Your task to perform on an android device: delete location history Image 0: 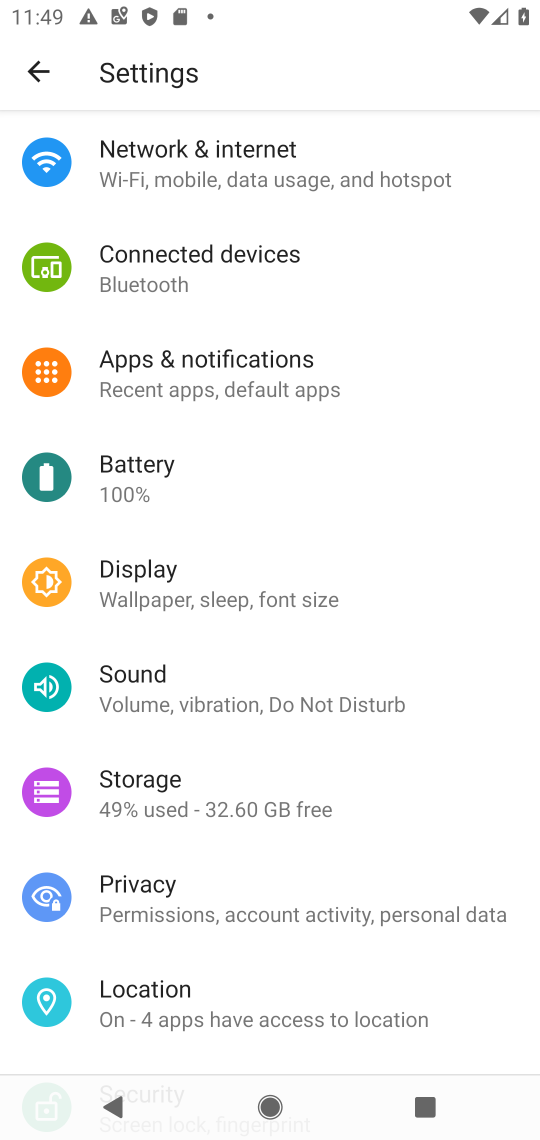
Step 0: press home button
Your task to perform on an android device: delete location history Image 1: 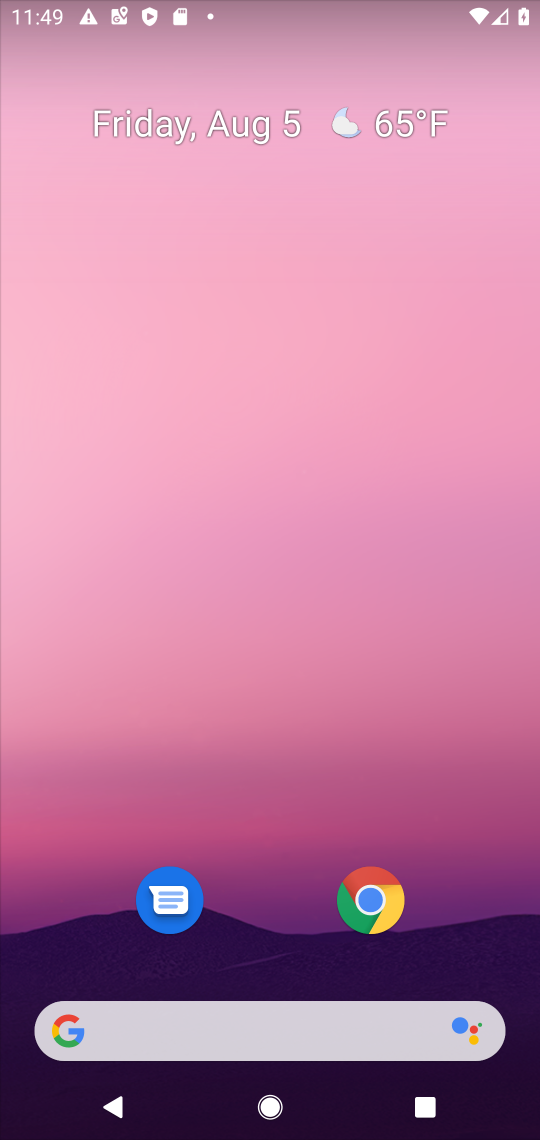
Step 1: drag from (259, 679) to (232, 82)
Your task to perform on an android device: delete location history Image 2: 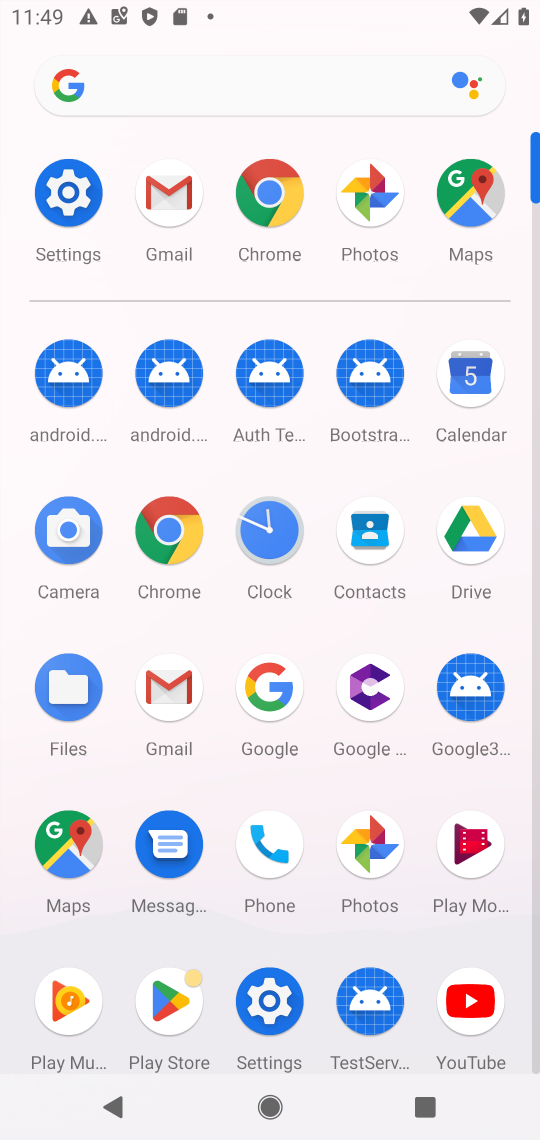
Step 2: click (57, 848)
Your task to perform on an android device: delete location history Image 3: 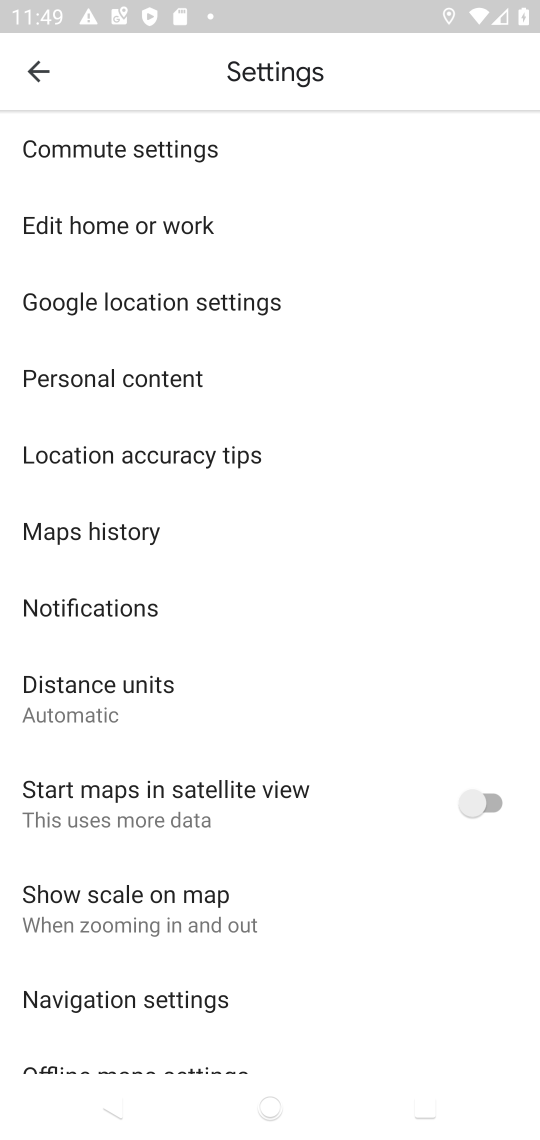
Step 3: click (40, 69)
Your task to perform on an android device: delete location history Image 4: 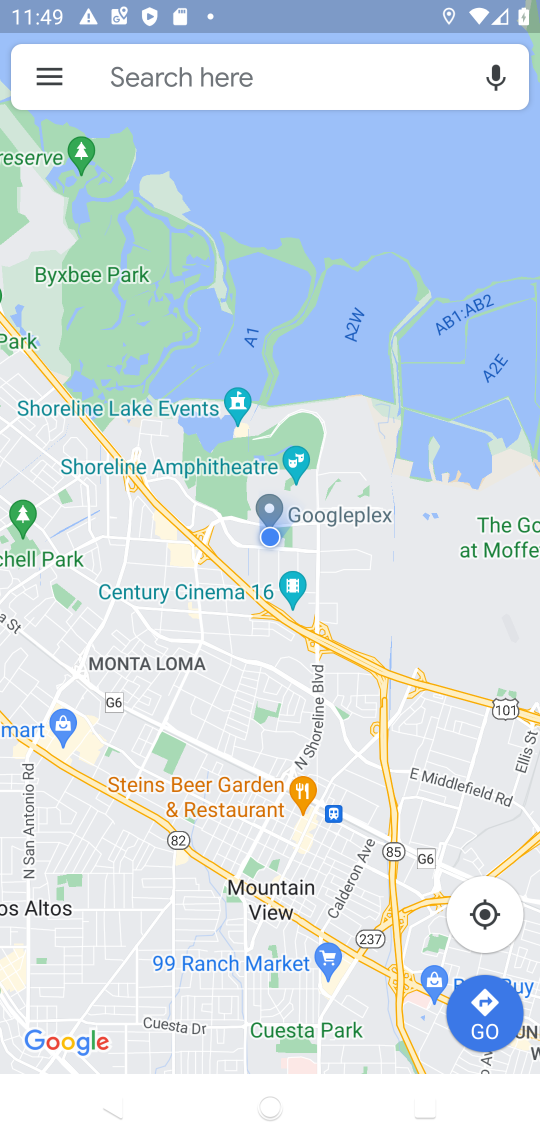
Step 4: click (37, 70)
Your task to perform on an android device: delete location history Image 5: 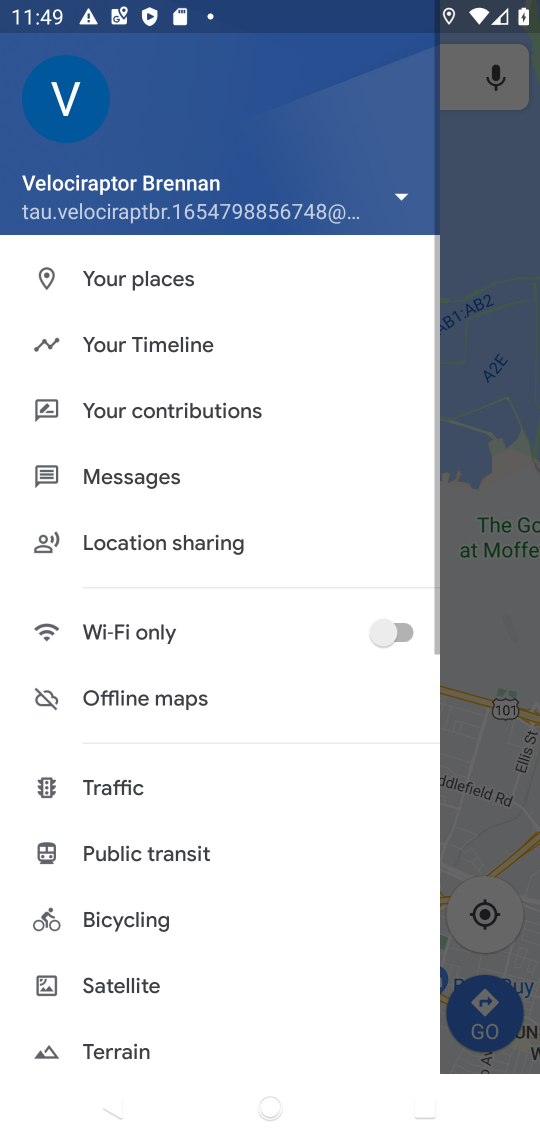
Step 5: click (155, 340)
Your task to perform on an android device: delete location history Image 6: 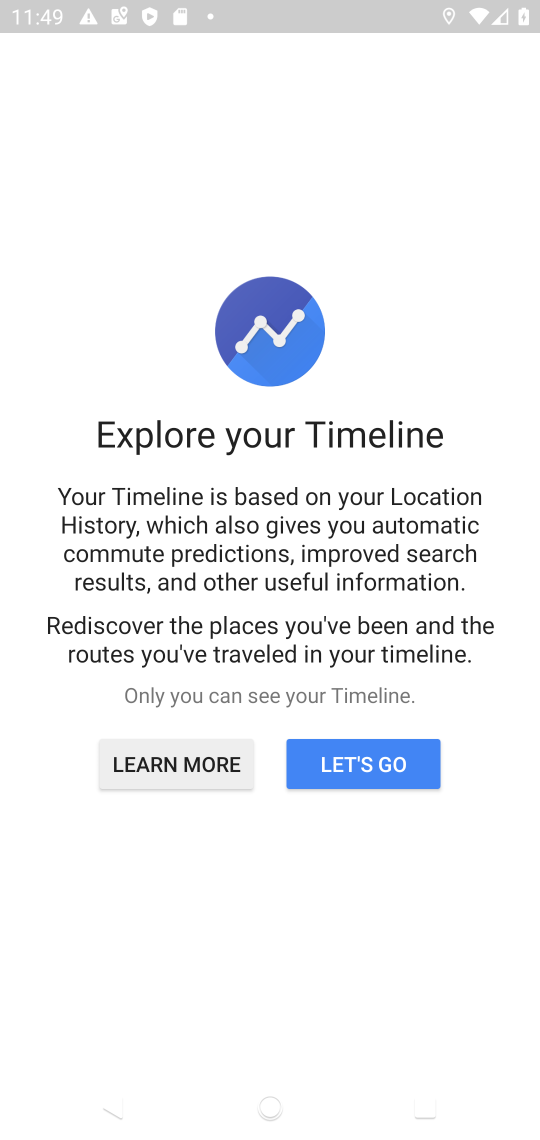
Step 6: click (326, 757)
Your task to perform on an android device: delete location history Image 7: 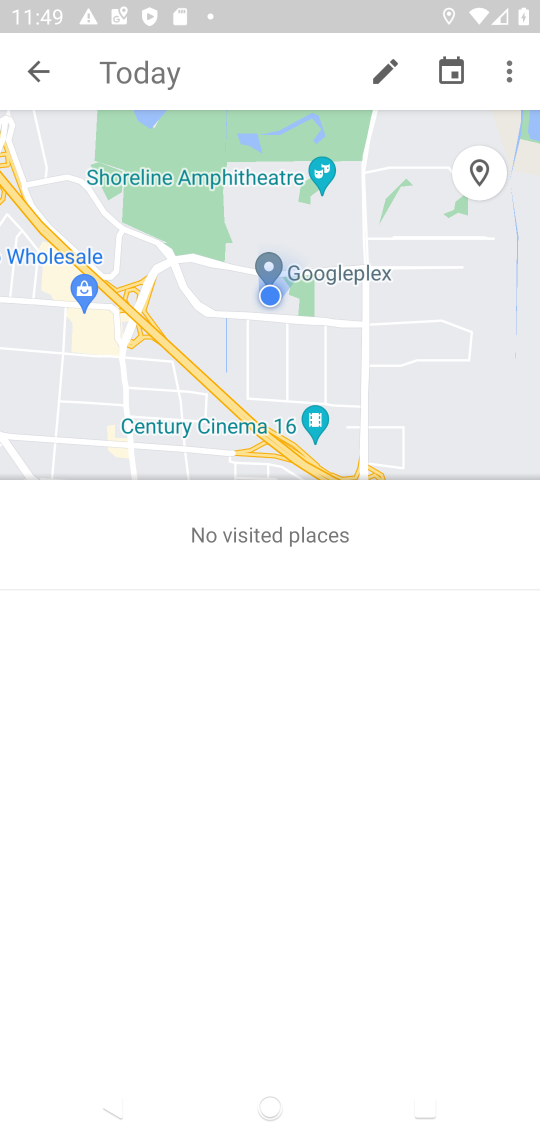
Step 7: click (509, 80)
Your task to perform on an android device: delete location history Image 8: 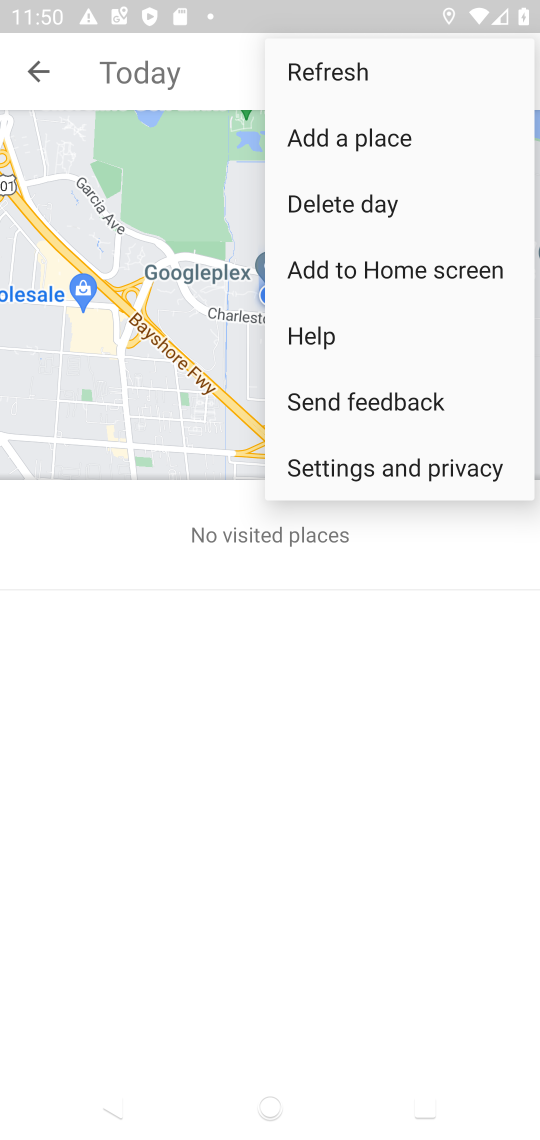
Step 8: click (382, 471)
Your task to perform on an android device: delete location history Image 9: 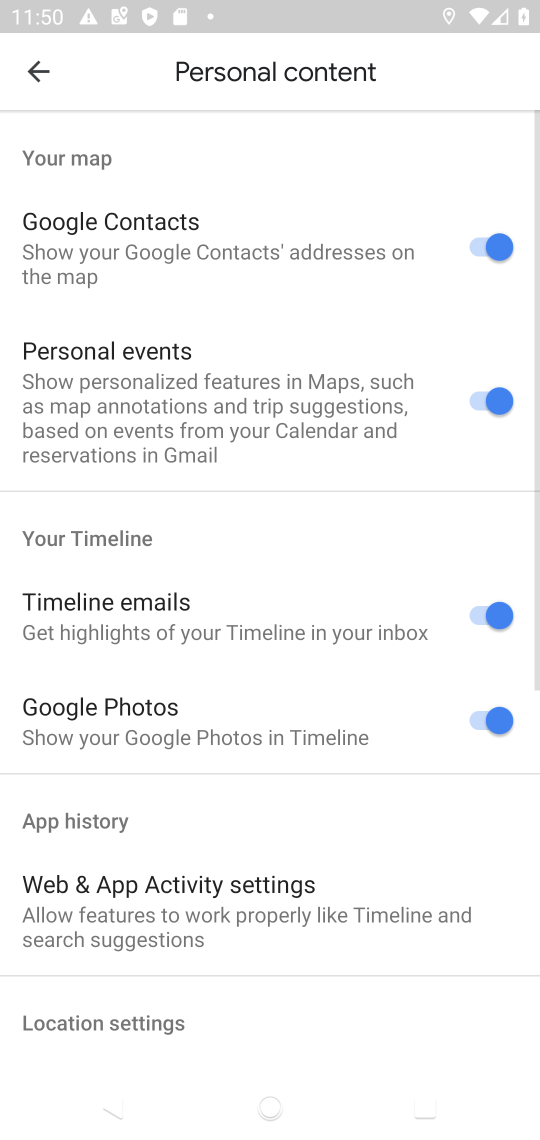
Step 9: drag from (130, 934) to (174, 408)
Your task to perform on an android device: delete location history Image 10: 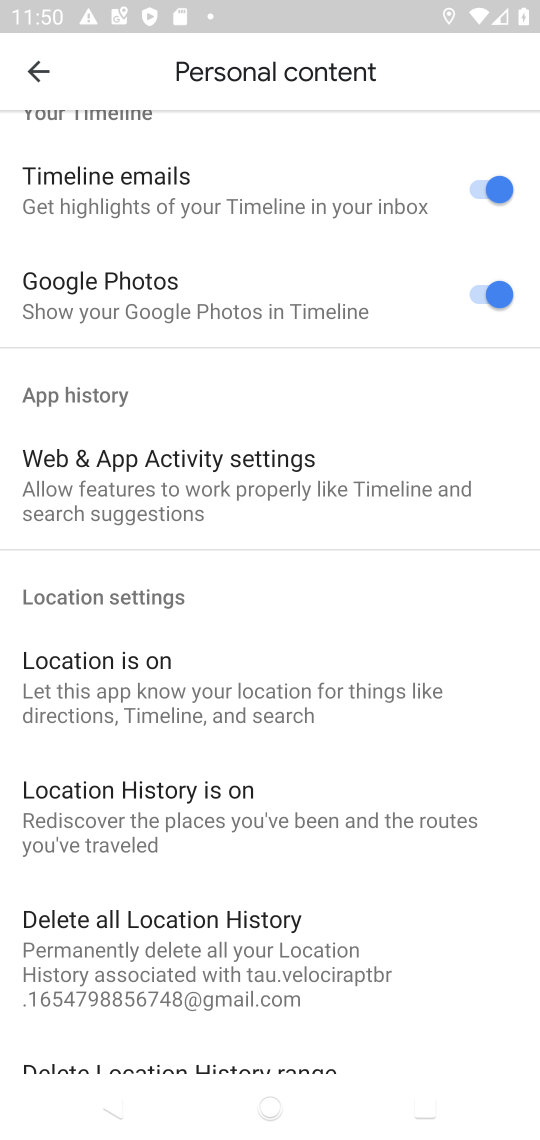
Step 10: drag from (179, 993) to (173, 579)
Your task to perform on an android device: delete location history Image 11: 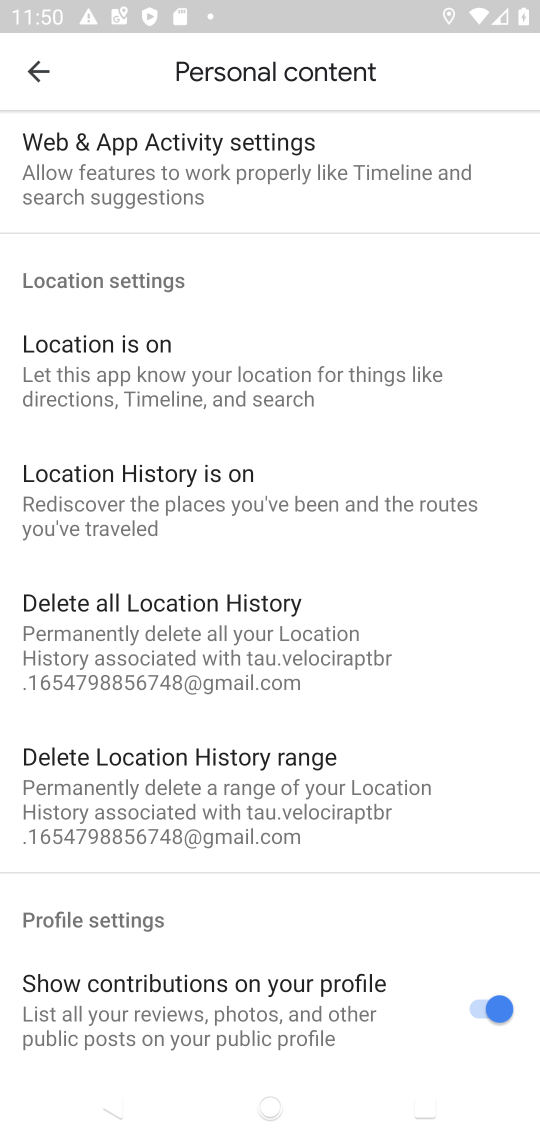
Step 11: click (132, 630)
Your task to perform on an android device: delete location history Image 12: 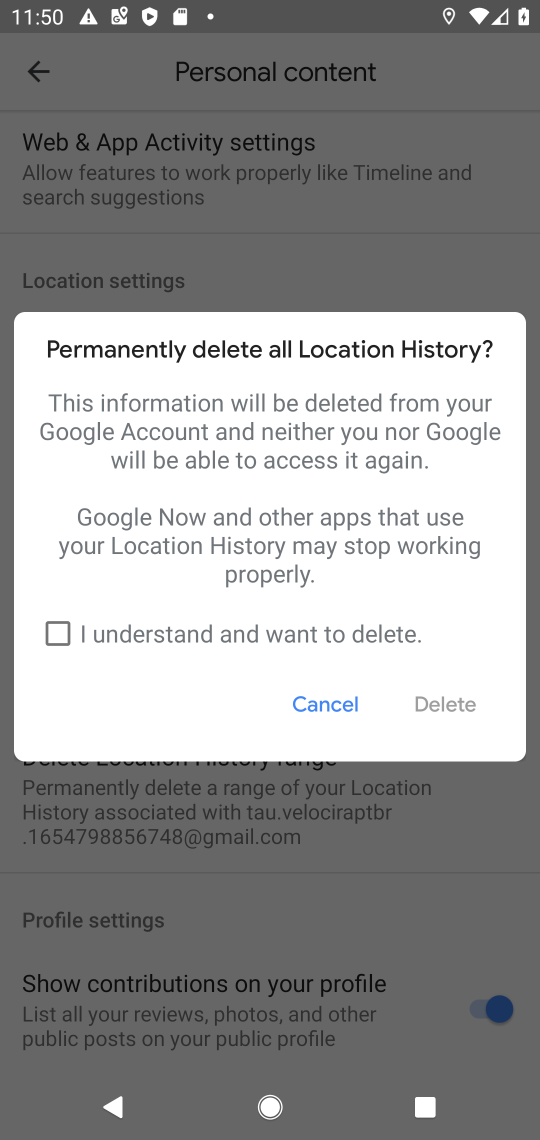
Step 12: click (55, 634)
Your task to perform on an android device: delete location history Image 13: 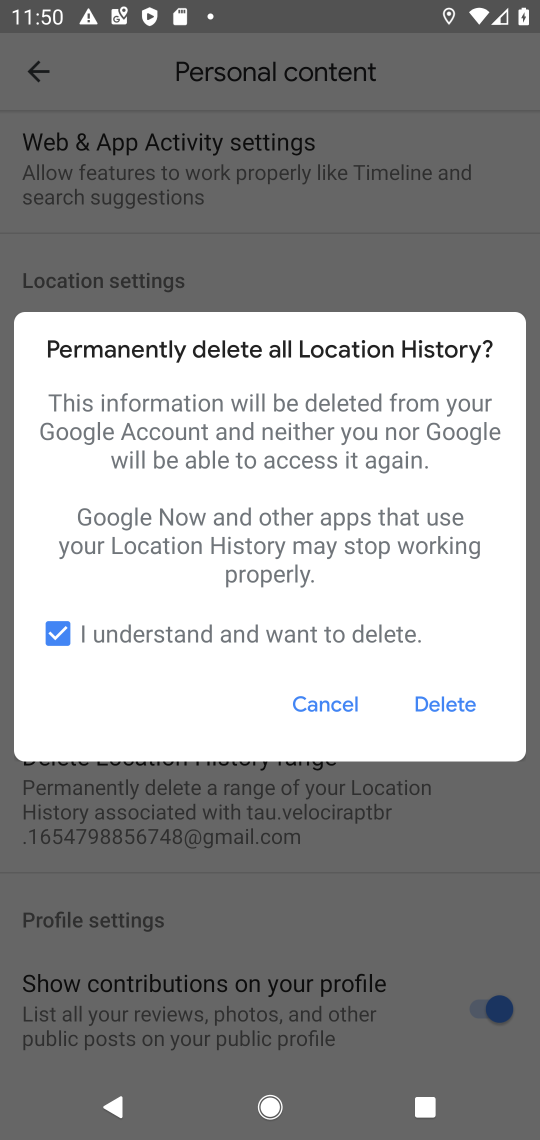
Step 13: click (435, 704)
Your task to perform on an android device: delete location history Image 14: 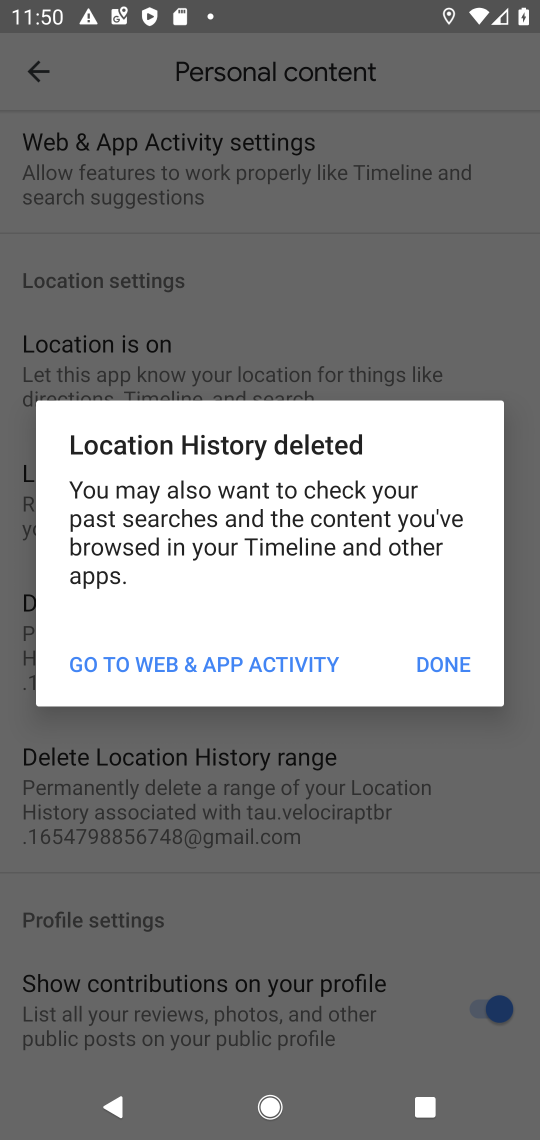
Step 14: click (442, 662)
Your task to perform on an android device: delete location history Image 15: 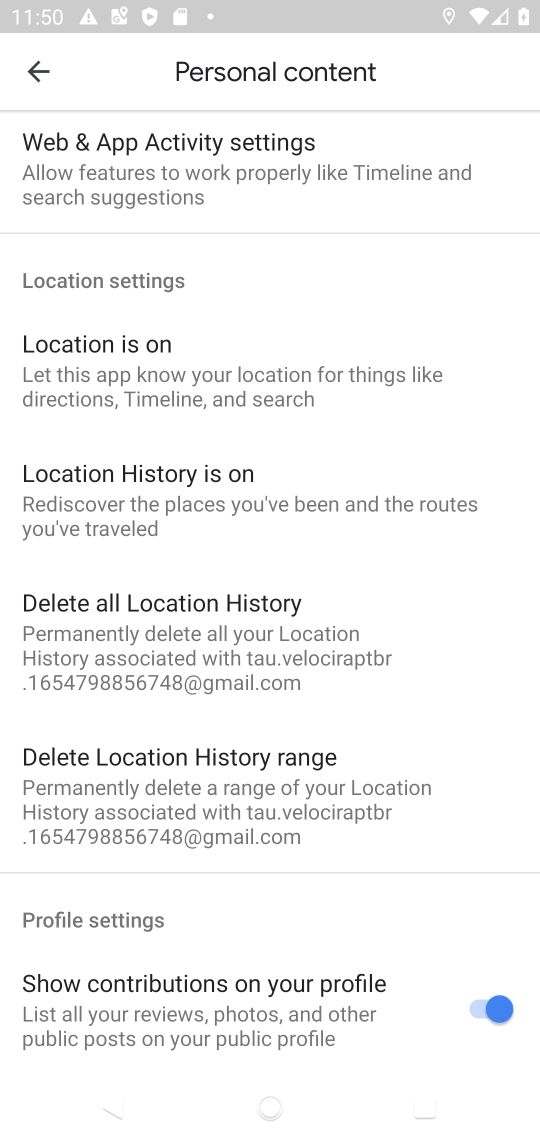
Step 15: task complete